Your task to perform on an android device: Open Youtube and go to "Your channel" Image 0: 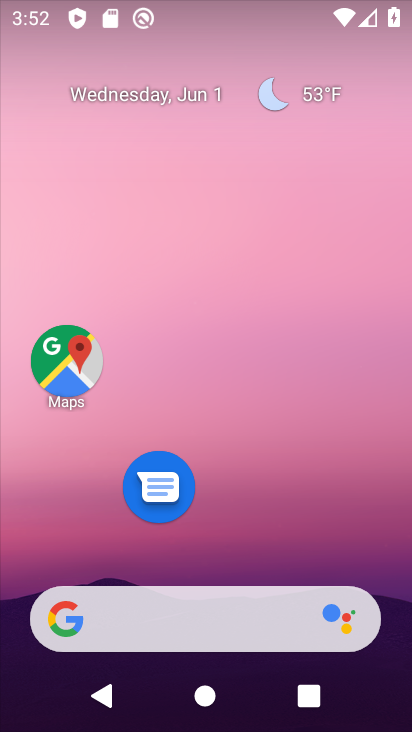
Step 0: drag from (201, 567) to (353, 1)
Your task to perform on an android device: Open Youtube and go to "Your channel" Image 1: 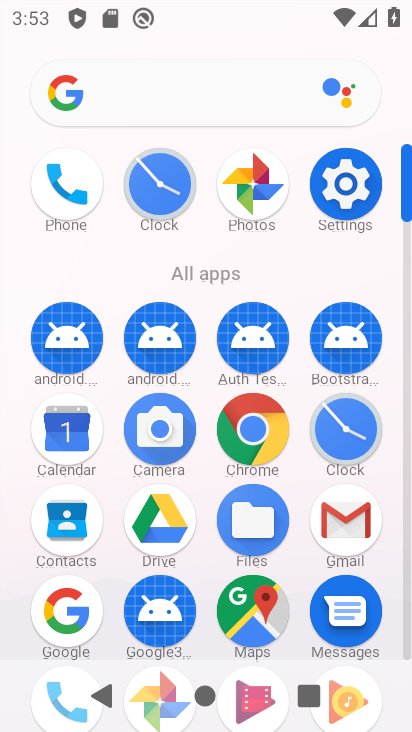
Step 1: drag from (198, 498) to (205, 36)
Your task to perform on an android device: Open Youtube and go to "Your channel" Image 2: 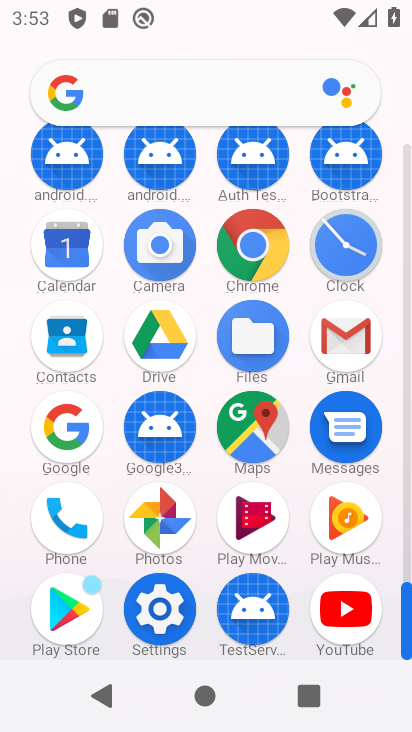
Step 2: click (345, 610)
Your task to perform on an android device: Open Youtube and go to "Your channel" Image 3: 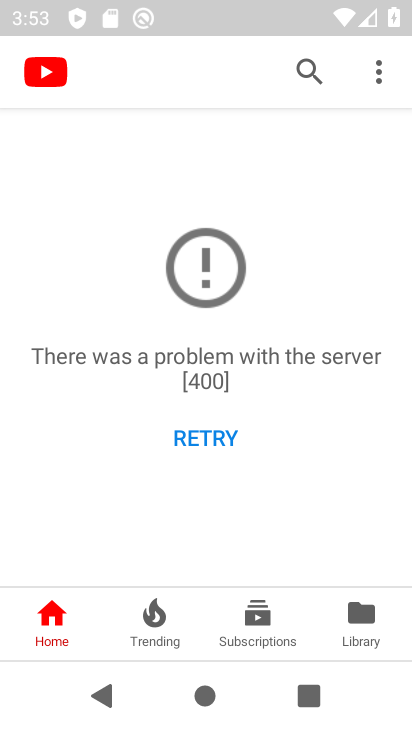
Step 3: click (233, 427)
Your task to perform on an android device: Open Youtube and go to "Your channel" Image 4: 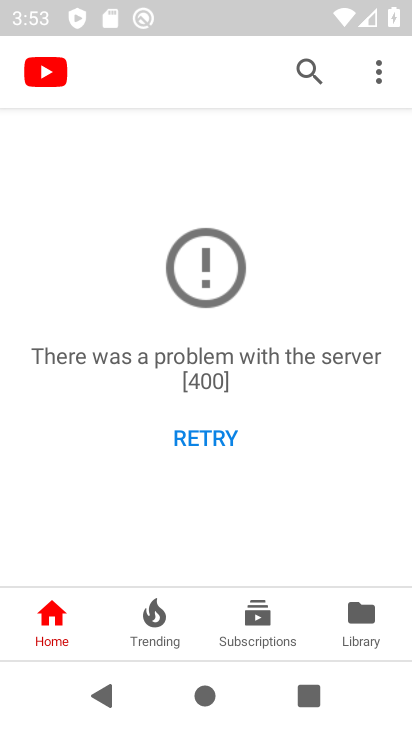
Step 4: click (206, 441)
Your task to perform on an android device: Open Youtube and go to "Your channel" Image 5: 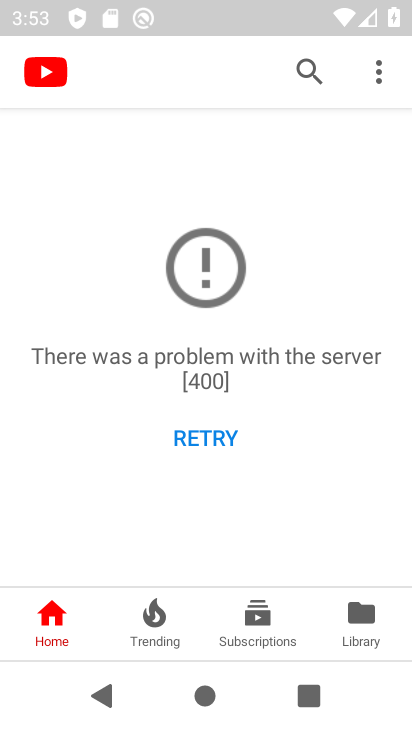
Step 5: click (206, 441)
Your task to perform on an android device: Open Youtube and go to "Your channel" Image 6: 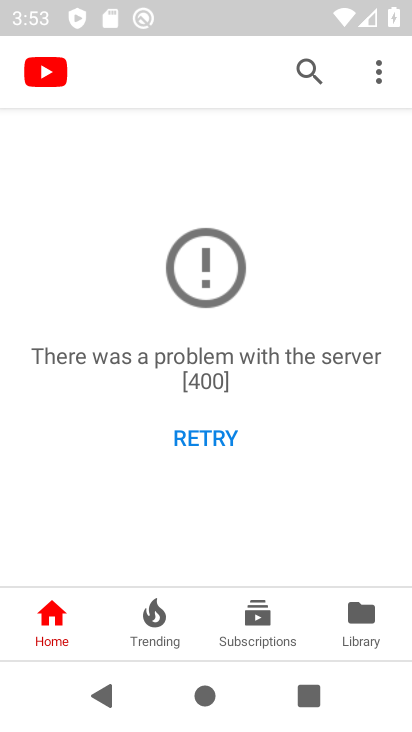
Step 6: task complete